Your task to perform on an android device: set the timer Image 0: 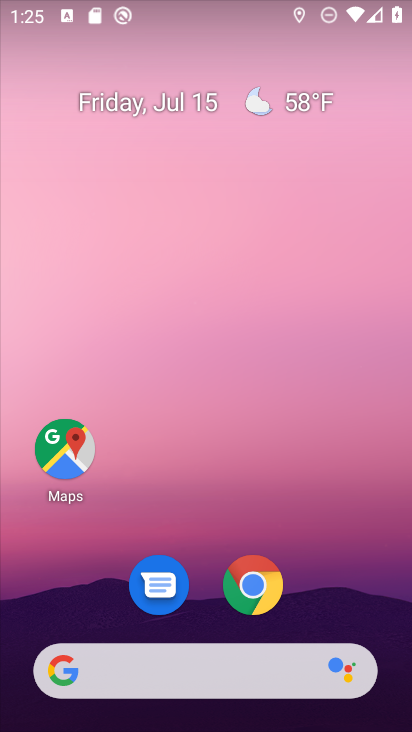
Step 0: drag from (214, 513) to (277, 56)
Your task to perform on an android device: set the timer Image 1: 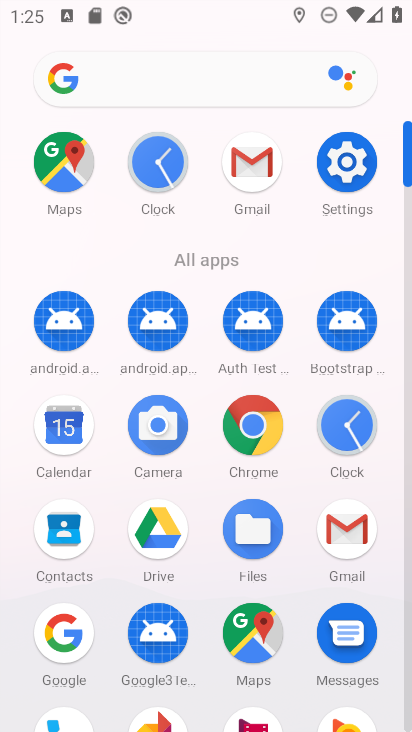
Step 1: click (177, 172)
Your task to perform on an android device: set the timer Image 2: 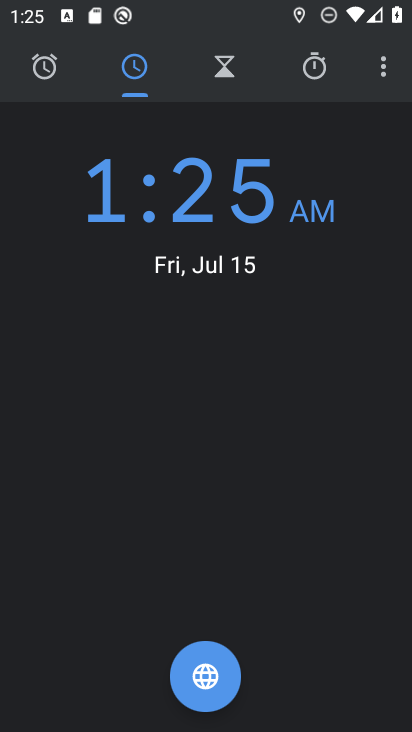
Step 2: click (227, 78)
Your task to perform on an android device: set the timer Image 3: 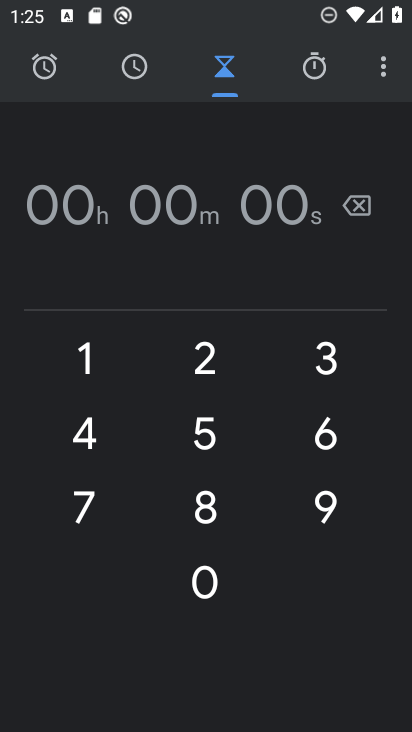
Step 3: click (91, 363)
Your task to perform on an android device: set the timer Image 4: 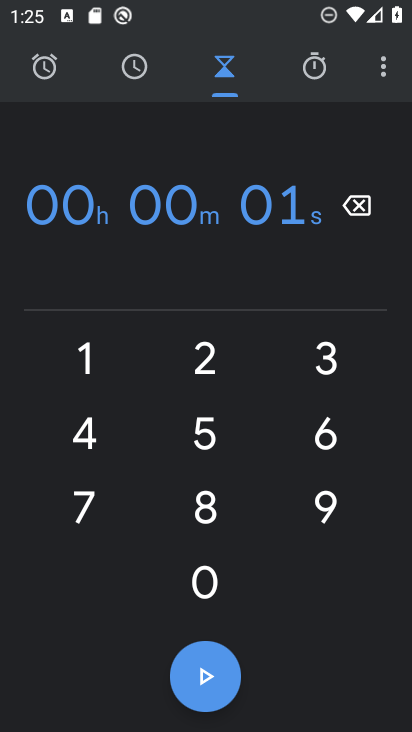
Step 4: click (198, 364)
Your task to perform on an android device: set the timer Image 5: 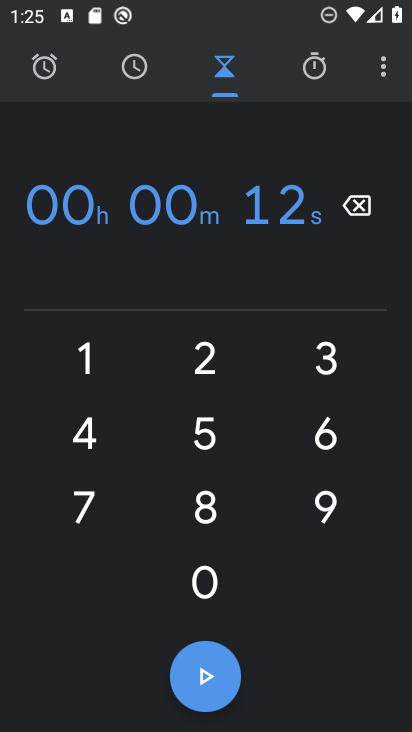
Step 5: task complete